Your task to perform on an android device: Open the phone app and click the voicemail tab. Image 0: 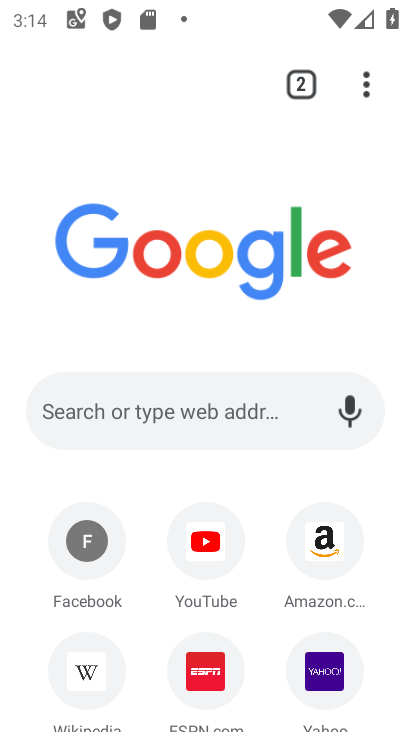
Step 0: press home button
Your task to perform on an android device: Open the phone app and click the voicemail tab. Image 1: 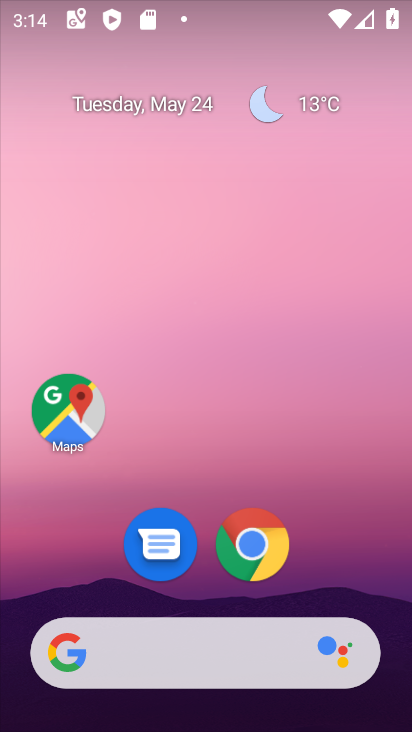
Step 1: drag from (352, 555) to (277, 58)
Your task to perform on an android device: Open the phone app and click the voicemail tab. Image 2: 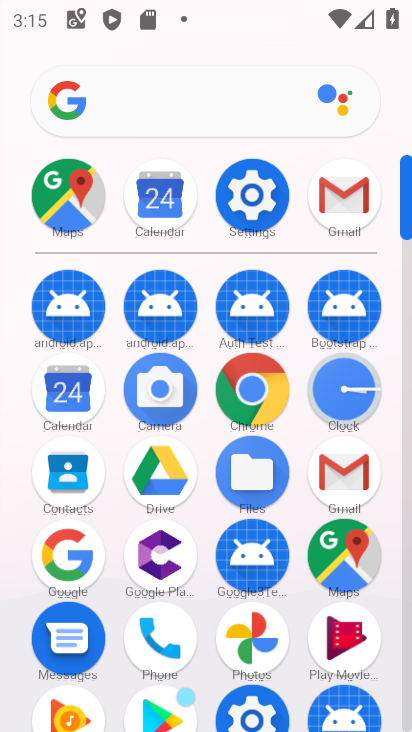
Step 2: click (176, 634)
Your task to perform on an android device: Open the phone app and click the voicemail tab. Image 3: 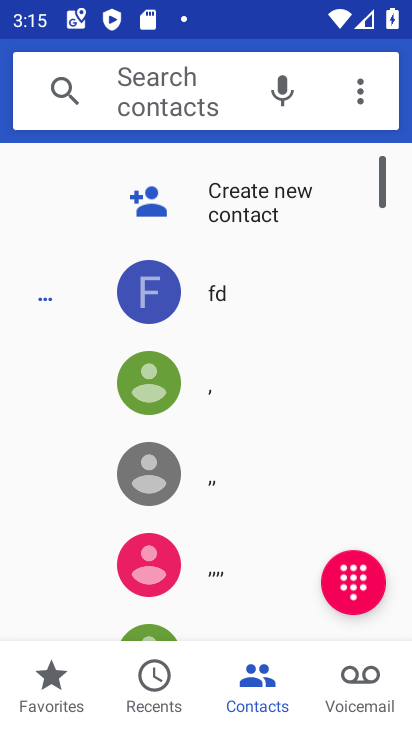
Step 3: click (356, 713)
Your task to perform on an android device: Open the phone app and click the voicemail tab. Image 4: 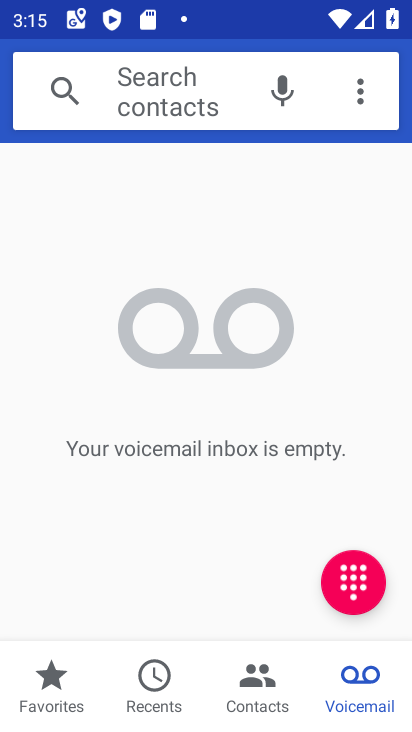
Step 4: task complete